Your task to perform on an android device: View the shopping cart on newegg.com. Add jbl flip 4 to the cart on newegg.com, then select checkout. Image 0: 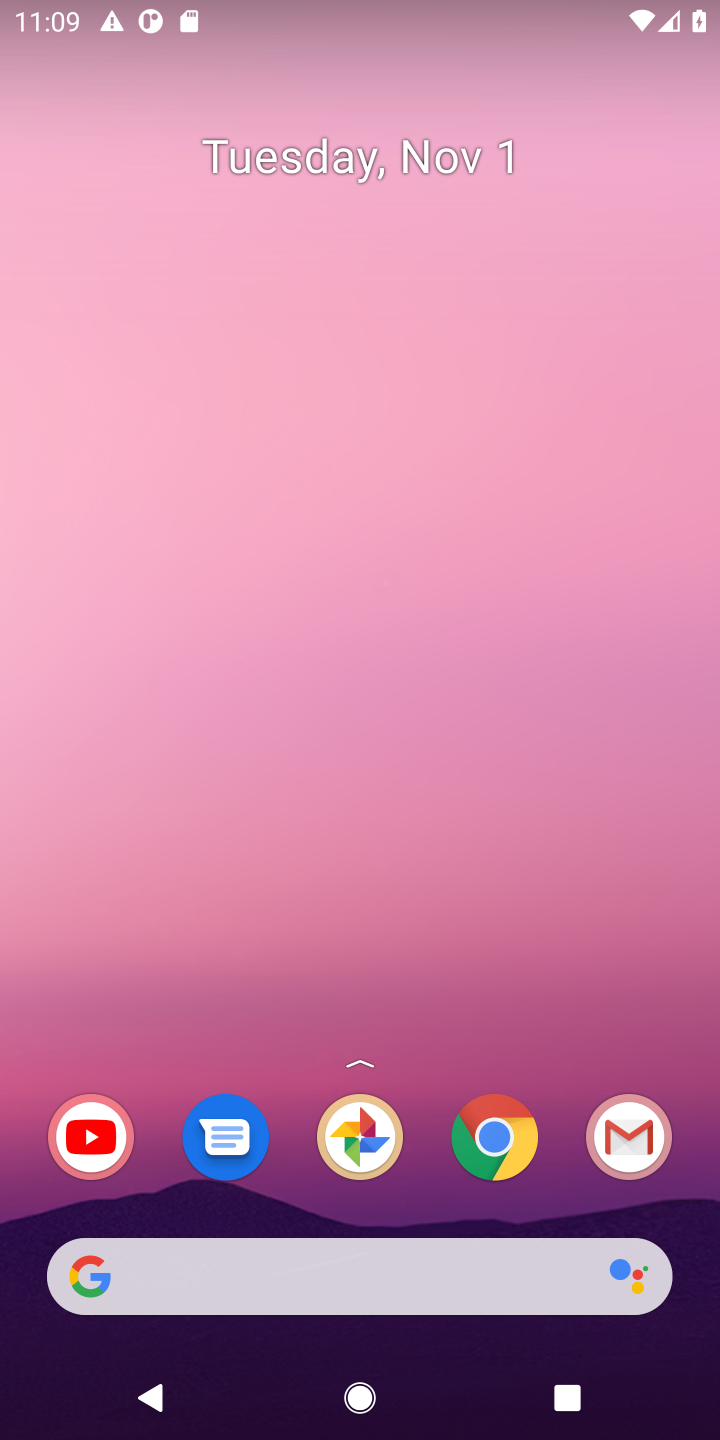
Step 0: press home button
Your task to perform on an android device: View the shopping cart on newegg.com. Add jbl flip 4 to the cart on newegg.com, then select checkout. Image 1: 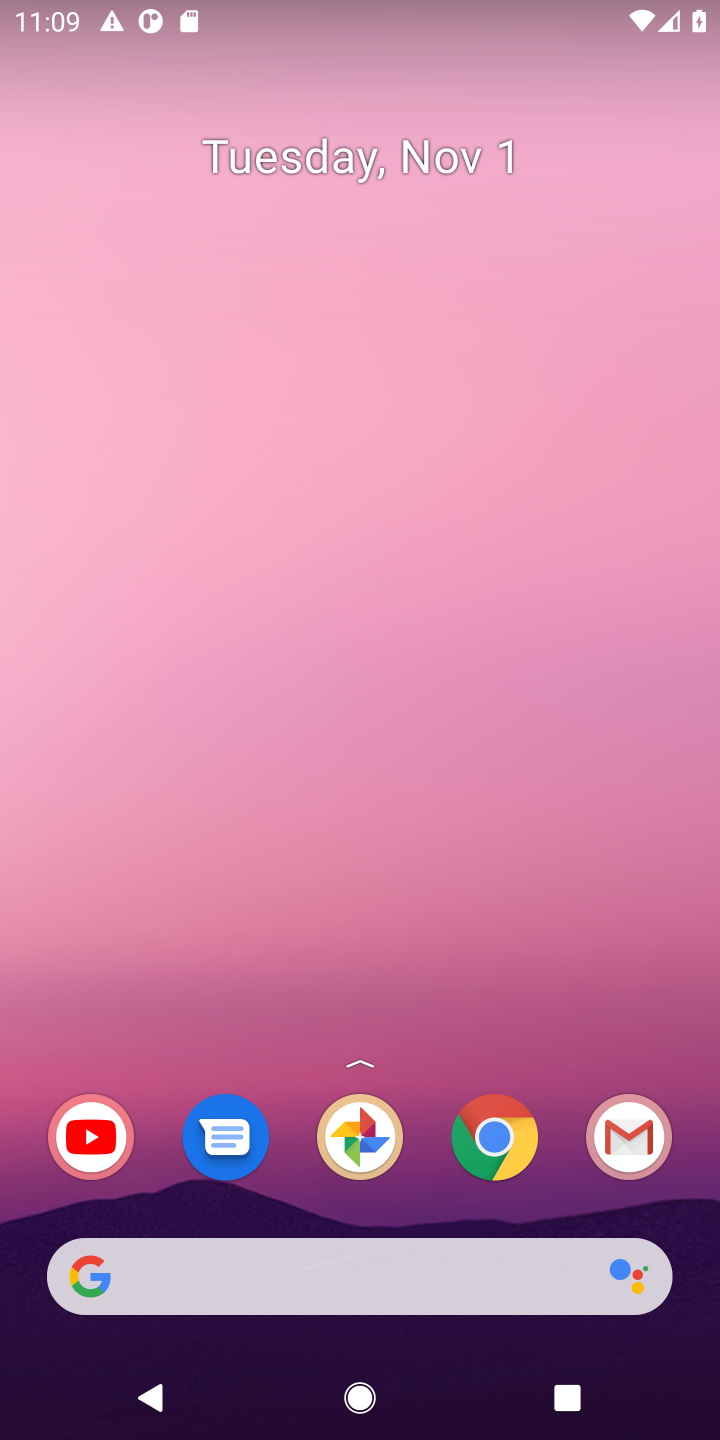
Step 1: click (437, 1283)
Your task to perform on an android device: View the shopping cart on newegg.com. Add jbl flip 4 to the cart on newegg.com, then select checkout. Image 2: 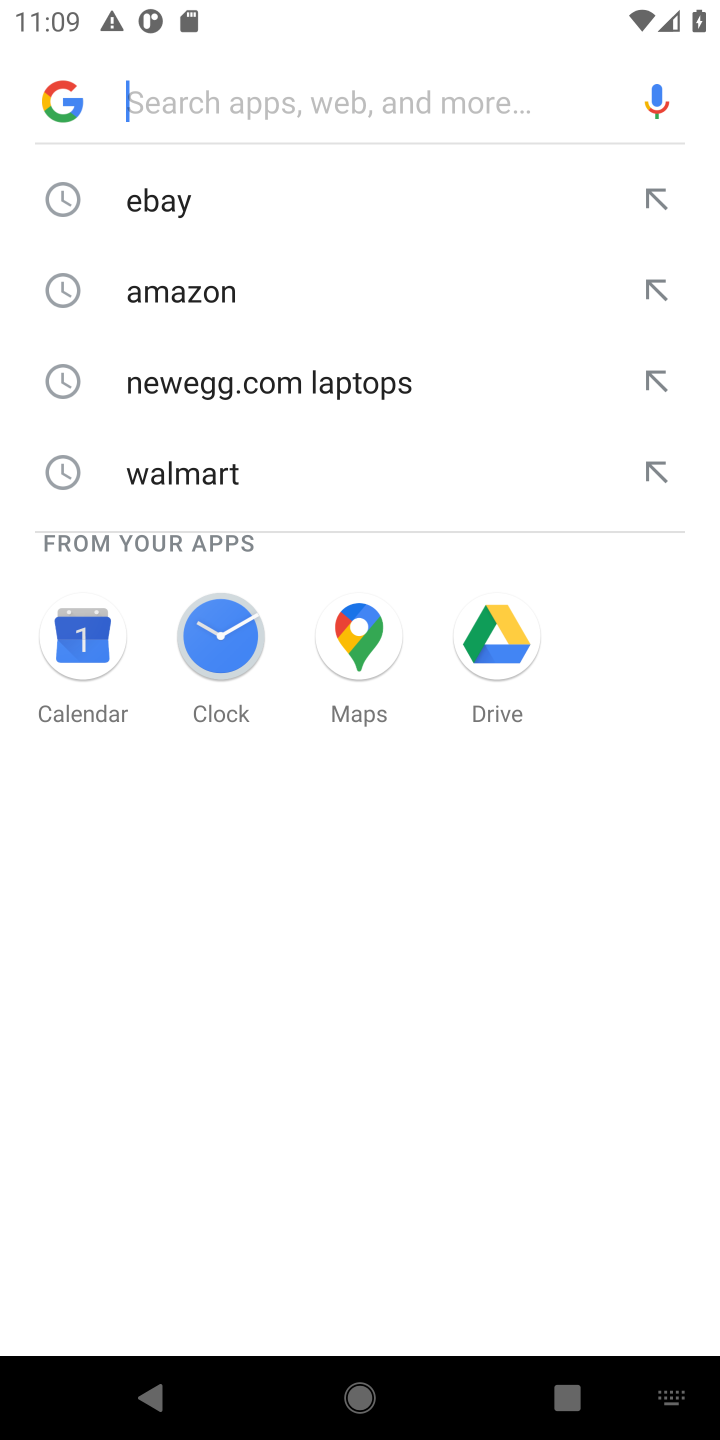
Step 2: type "newegg.com"
Your task to perform on an android device: View the shopping cart on newegg.com. Add jbl flip 4 to the cart on newegg.com, then select checkout. Image 3: 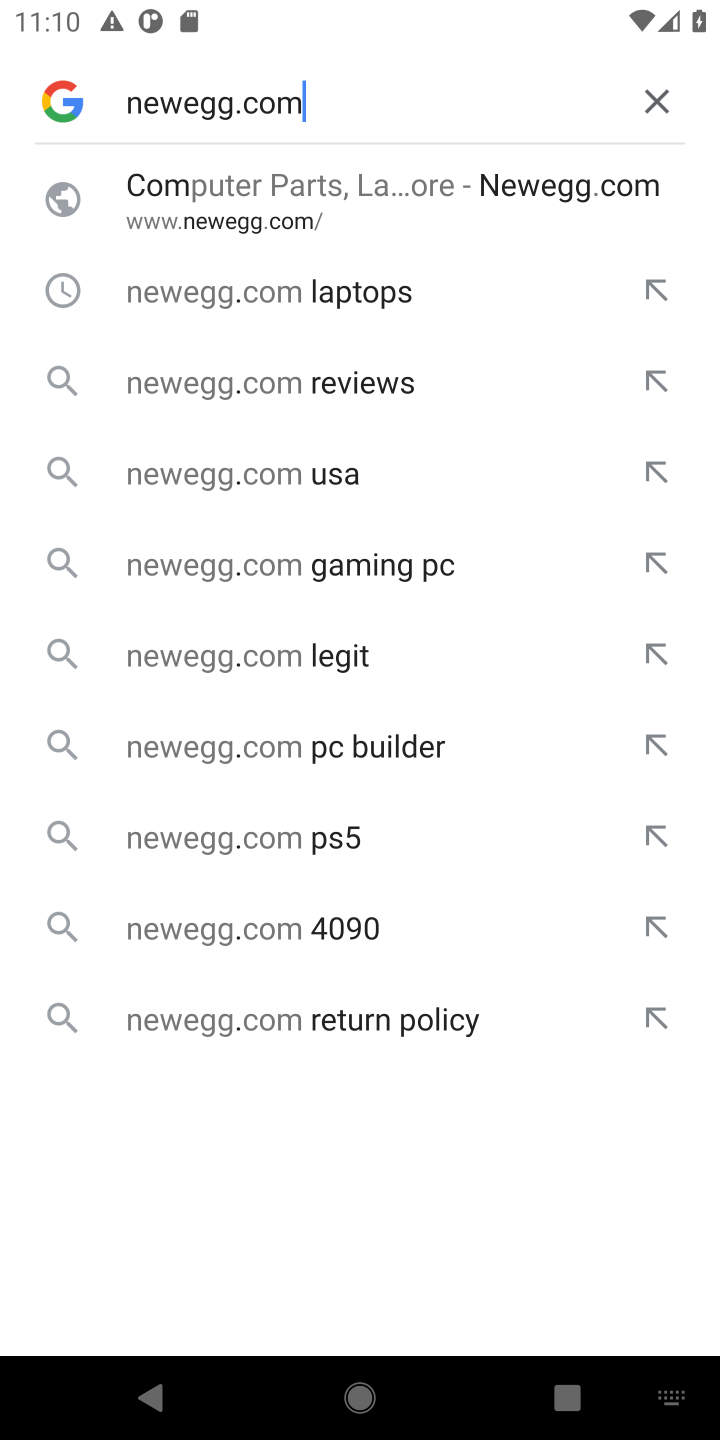
Step 3: click (270, 197)
Your task to perform on an android device: View the shopping cart on newegg.com. Add jbl flip 4 to the cart on newegg.com, then select checkout. Image 4: 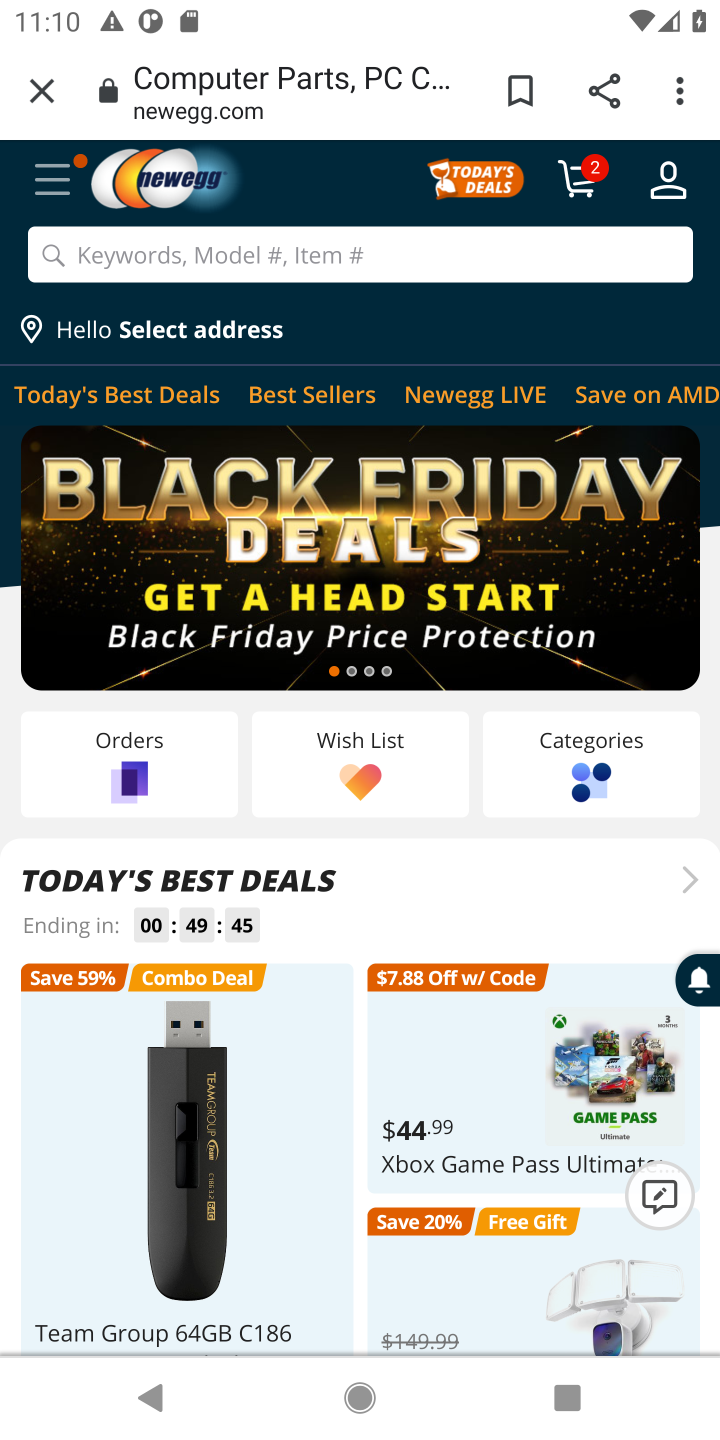
Step 4: click (237, 238)
Your task to perform on an android device: View the shopping cart on newegg.com. Add jbl flip 4 to the cart on newegg.com, then select checkout. Image 5: 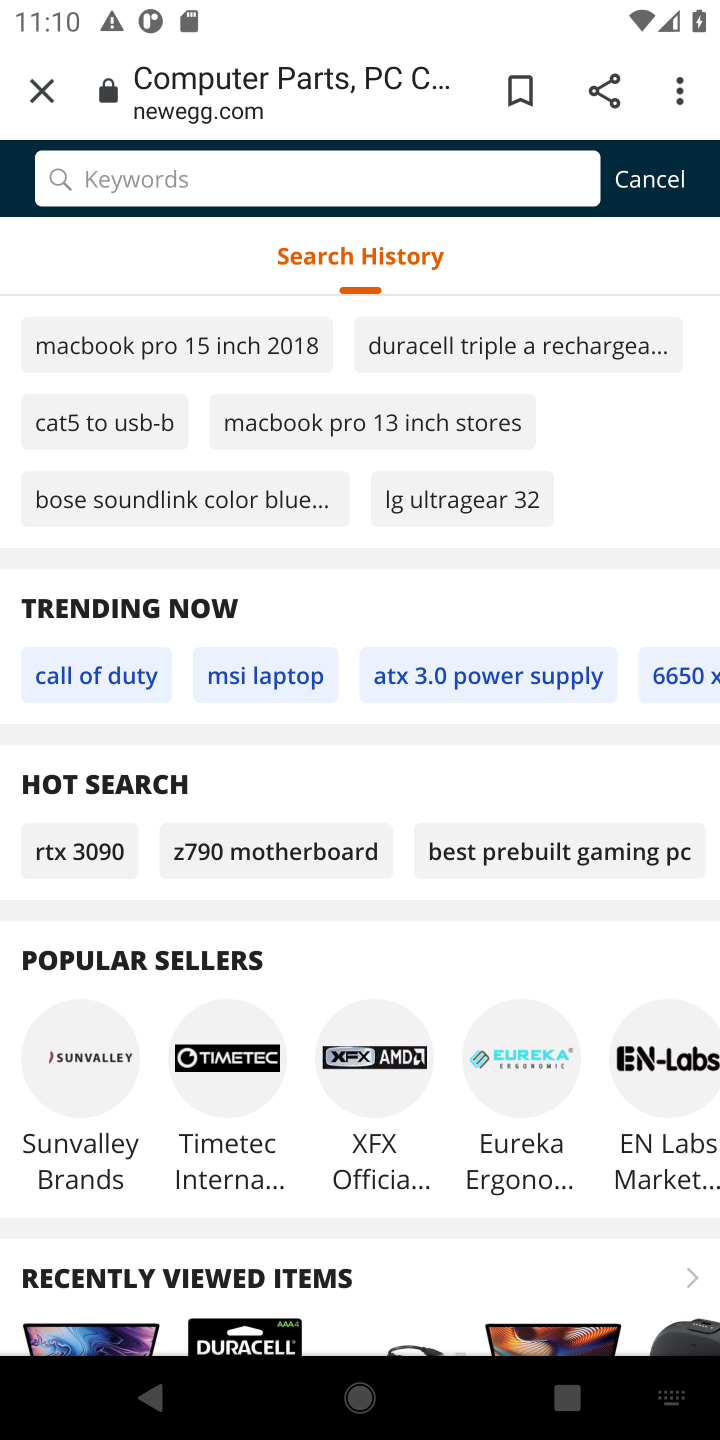
Step 5: type "jbl flip 4"
Your task to perform on an android device: View the shopping cart on newegg.com. Add jbl flip 4 to the cart on newegg.com, then select checkout. Image 6: 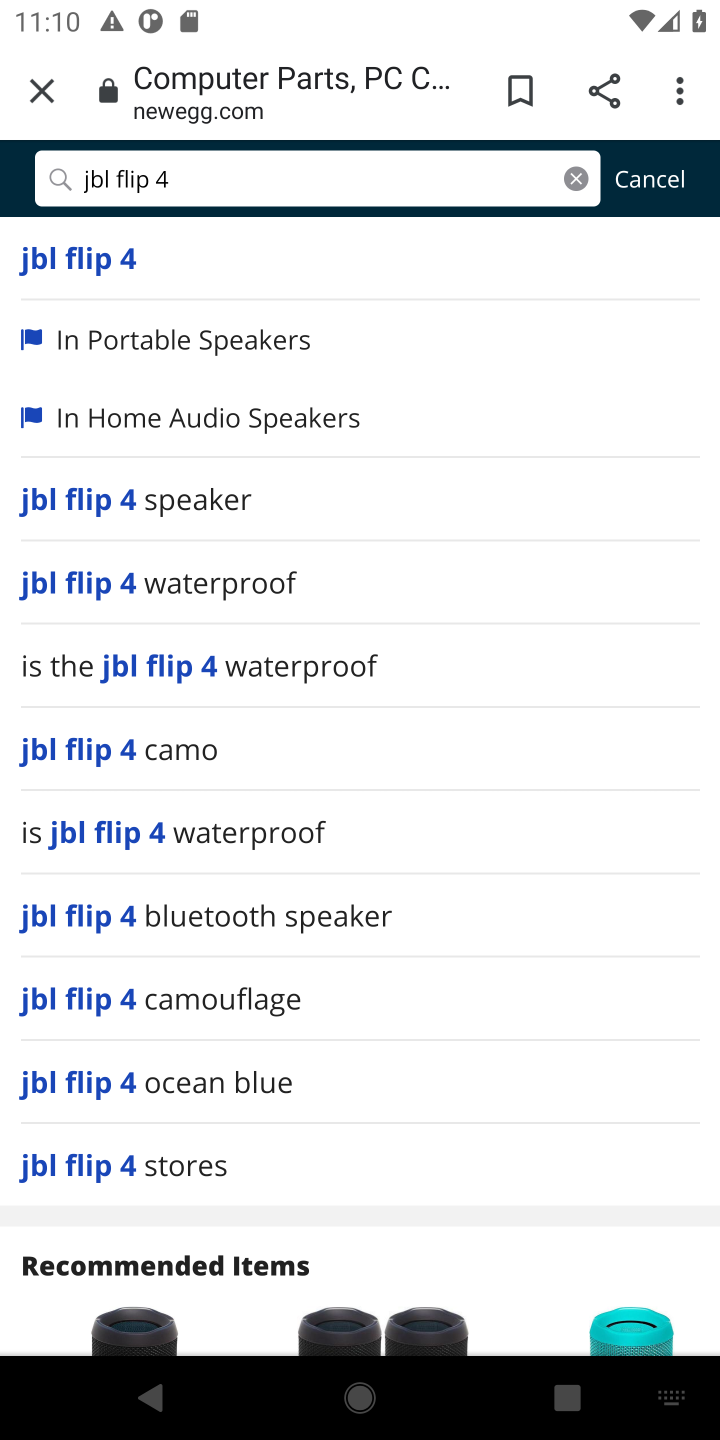
Step 6: click (64, 254)
Your task to perform on an android device: View the shopping cart on newegg.com. Add jbl flip 4 to the cart on newegg.com, then select checkout. Image 7: 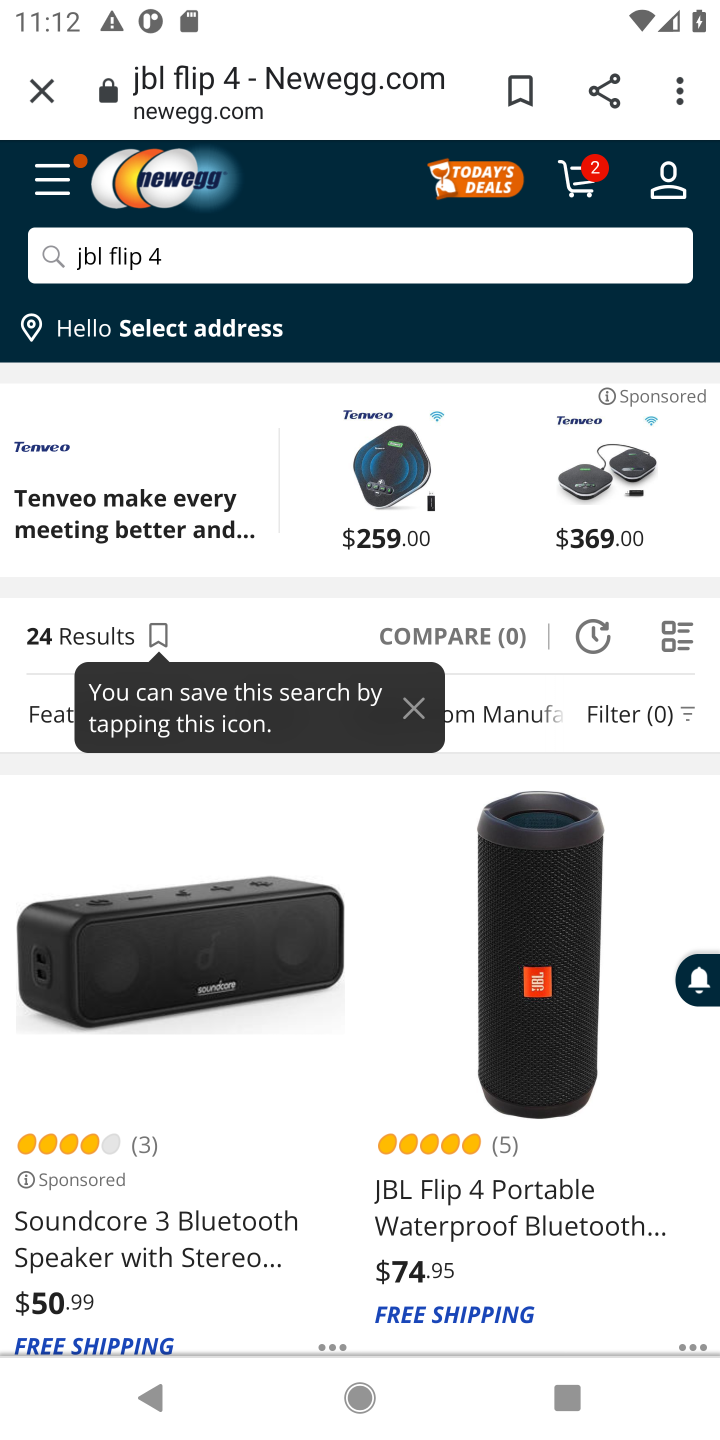
Step 7: click (127, 945)
Your task to perform on an android device: View the shopping cart on newegg.com. Add jbl flip 4 to the cart on newegg.com, then select checkout. Image 8: 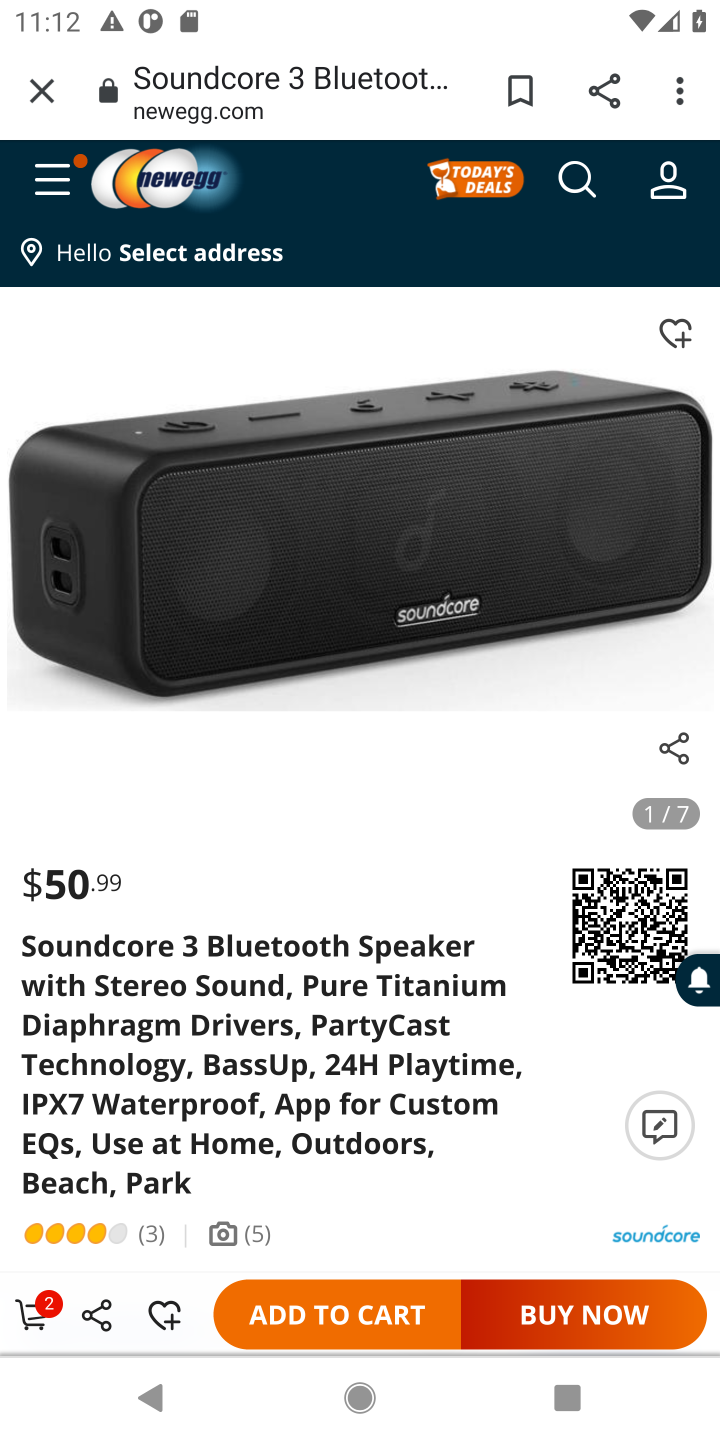
Step 8: click (298, 1296)
Your task to perform on an android device: View the shopping cart on newegg.com. Add jbl flip 4 to the cart on newegg.com, then select checkout. Image 9: 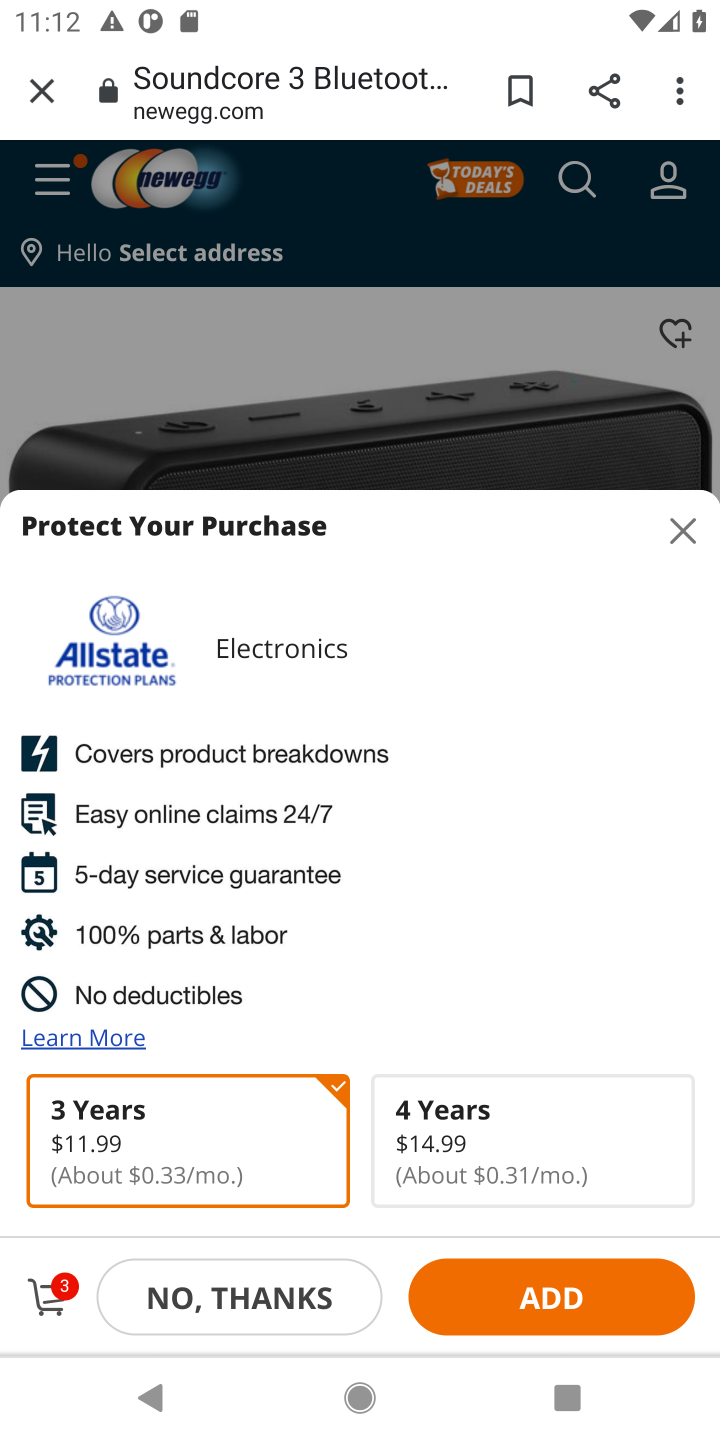
Step 9: click (195, 1295)
Your task to perform on an android device: View the shopping cart on newegg.com. Add jbl flip 4 to the cart on newegg.com, then select checkout. Image 10: 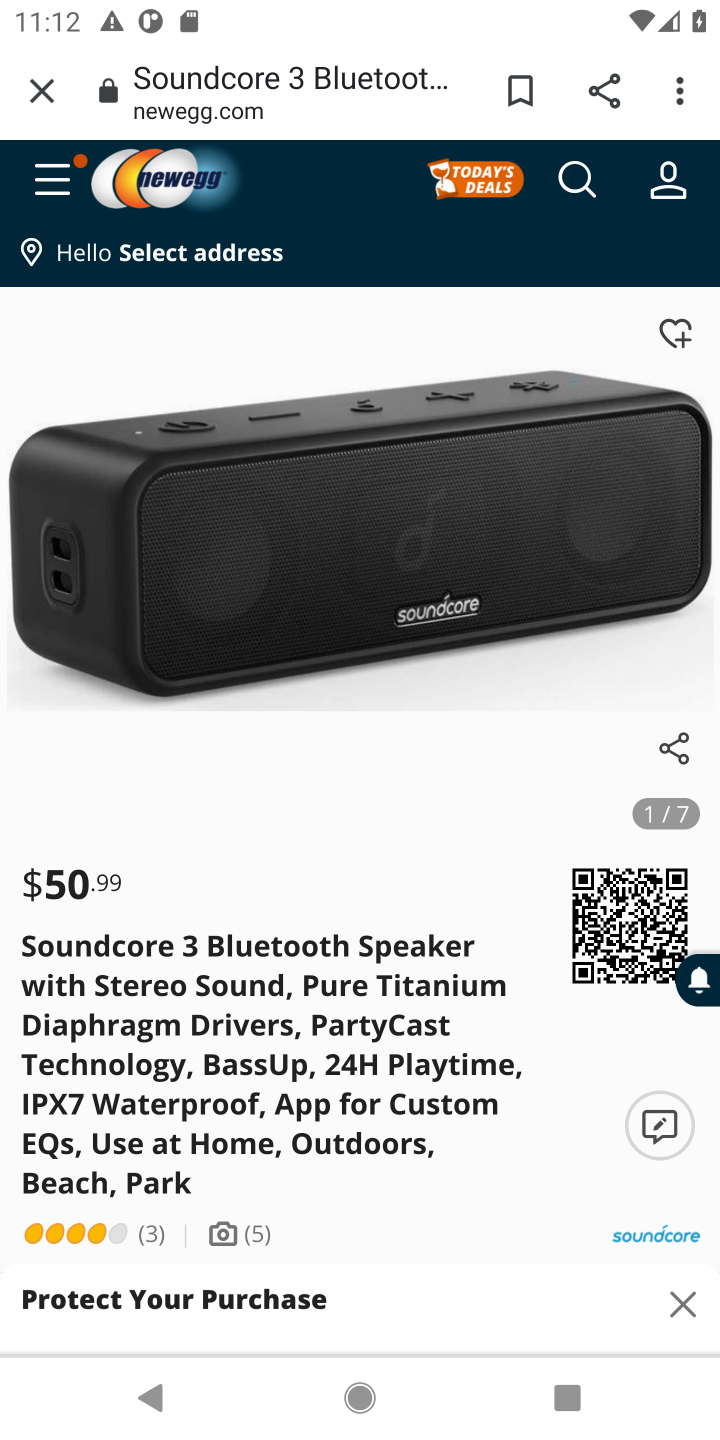
Step 10: click (33, 1297)
Your task to perform on an android device: View the shopping cart on newegg.com. Add jbl flip 4 to the cart on newegg.com, then select checkout. Image 11: 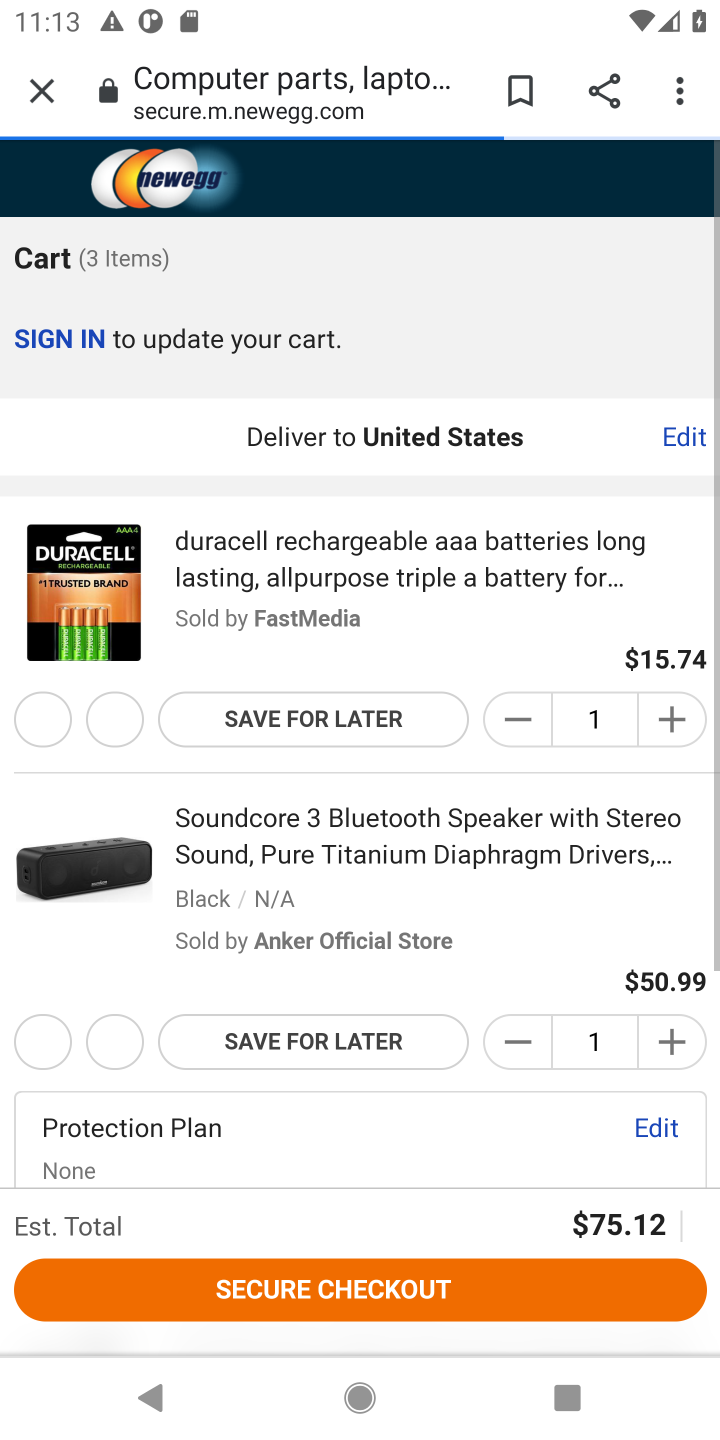
Step 11: click (33, 1297)
Your task to perform on an android device: View the shopping cart on newegg.com. Add jbl flip 4 to the cart on newegg.com, then select checkout. Image 12: 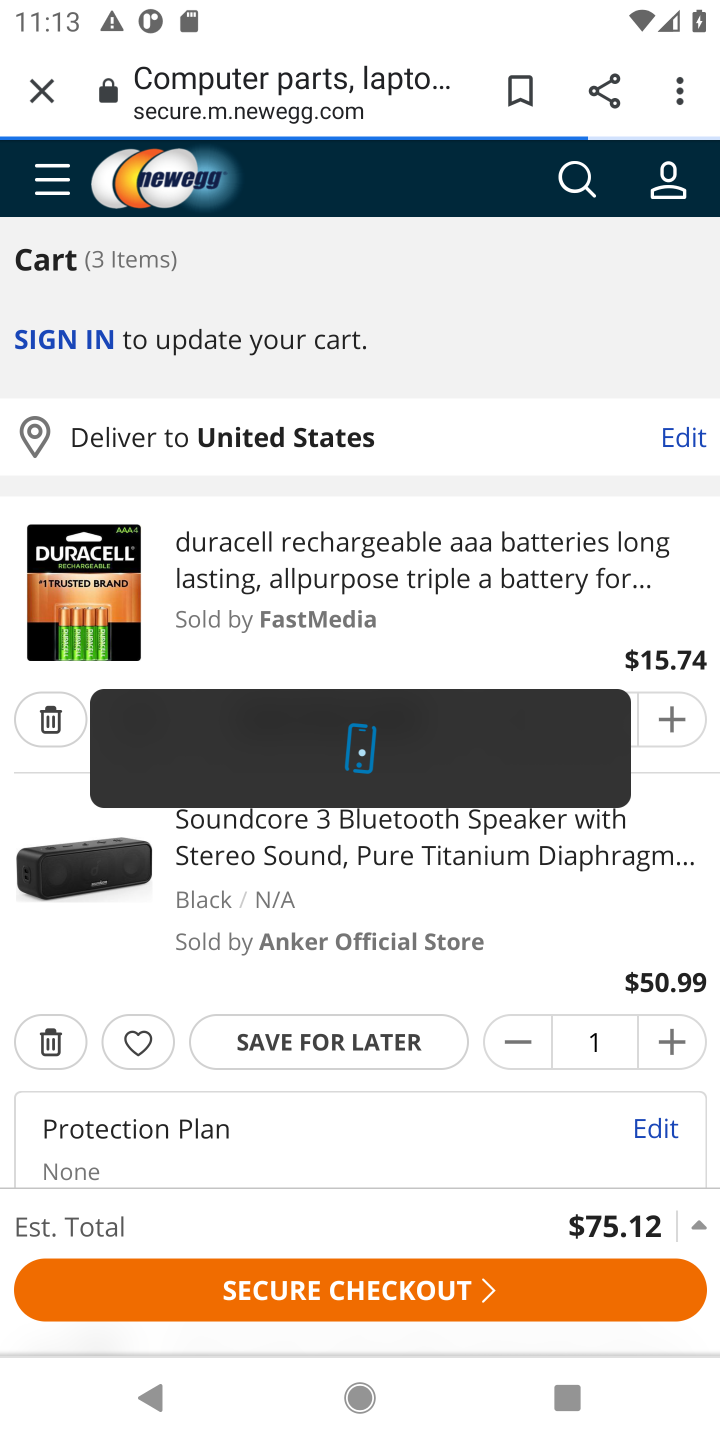
Step 12: click (377, 1294)
Your task to perform on an android device: View the shopping cart on newegg.com. Add jbl flip 4 to the cart on newegg.com, then select checkout. Image 13: 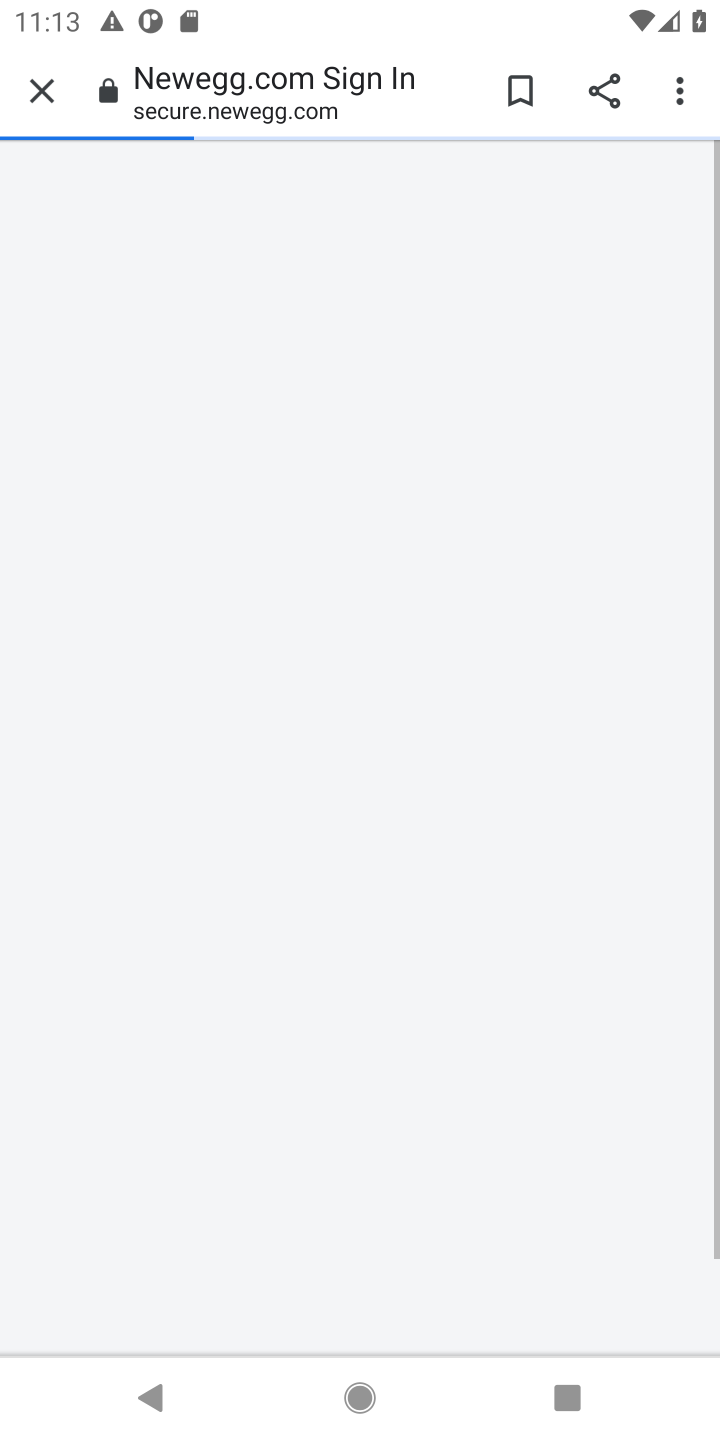
Step 13: task complete